Your task to perform on an android device: toggle priority inbox in the gmail app Image 0: 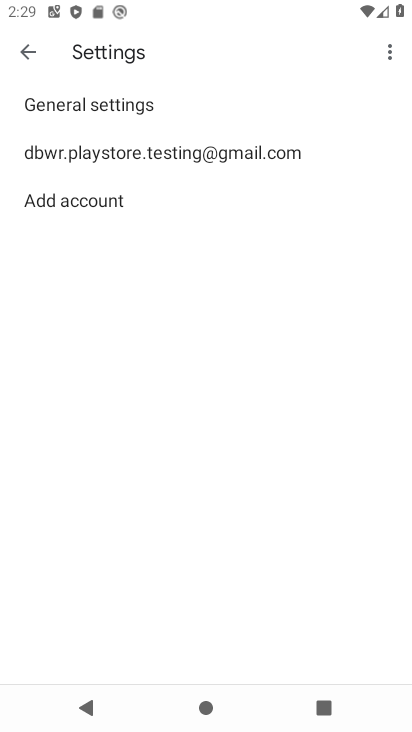
Step 0: press home button
Your task to perform on an android device: toggle priority inbox in the gmail app Image 1: 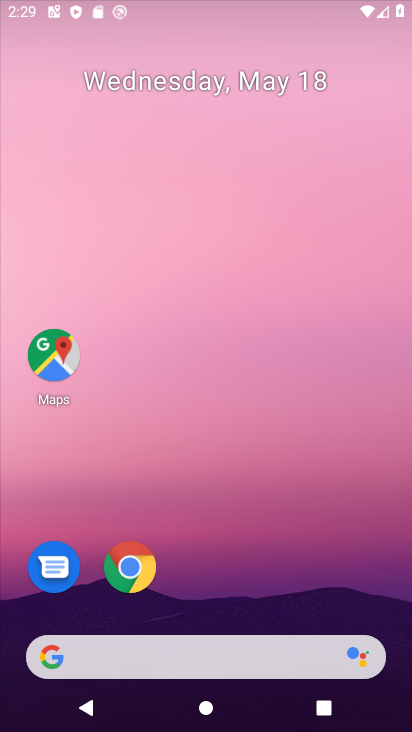
Step 1: drag from (276, 548) to (275, 99)
Your task to perform on an android device: toggle priority inbox in the gmail app Image 2: 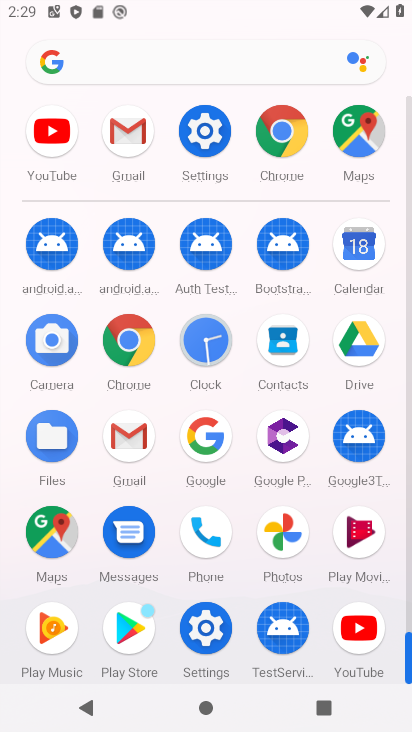
Step 2: click (138, 135)
Your task to perform on an android device: toggle priority inbox in the gmail app Image 3: 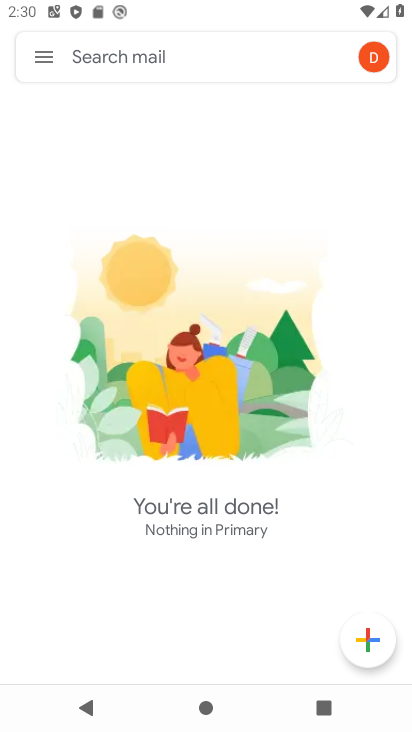
Step 3: click (29, 60)
Your task to perform on an android device: toggle priority inbox in the gmail app Image 4: 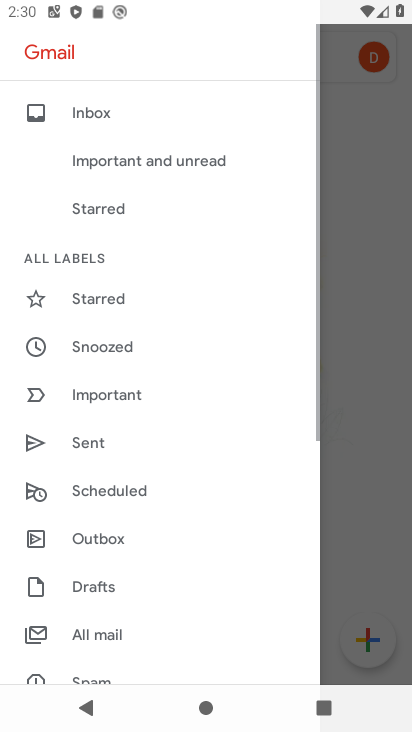
Step 4: drag from (132, 569) to (236, 191)
Your task to perform on an android device: toggle priority inbox in the gmail app Image 5: 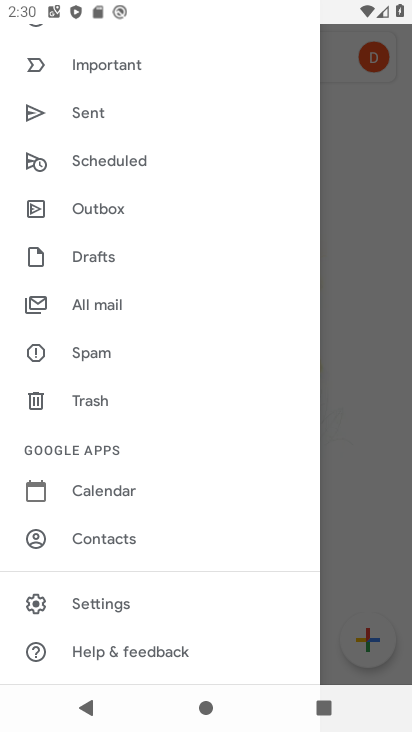
Step 5: click (110, 597)
Your task to perform on an android device: toggle priority inbox in the gmail app Image 6: 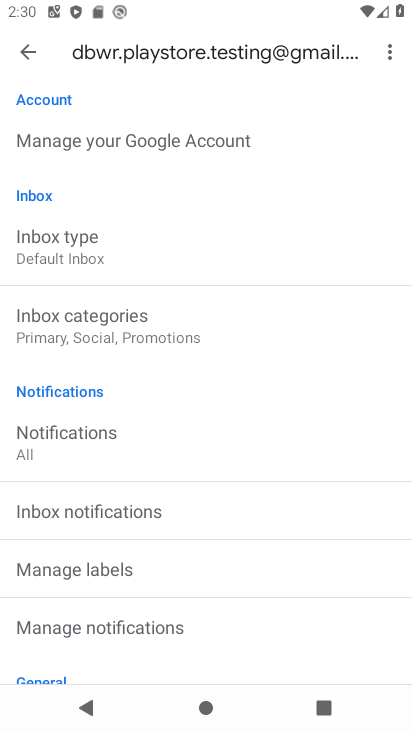
Step 6: click (80, 237)
Your task to perform on an android device: toggle priority inbox in the gmail app Image 7: 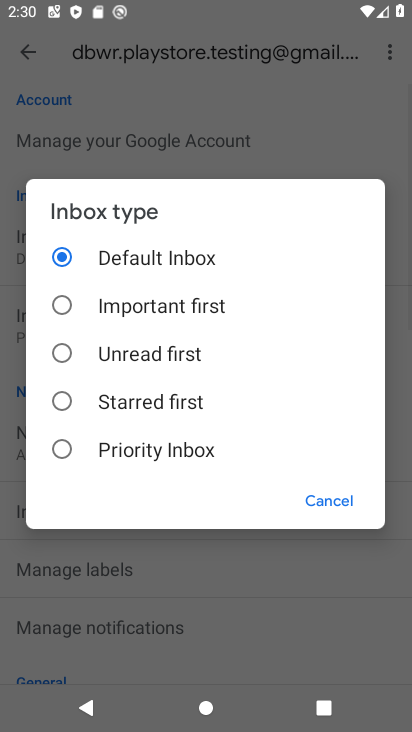
Step 7: click (137, 445)
Your task to perform on an android device: toggle priority inbox in the gmail app Image 8: 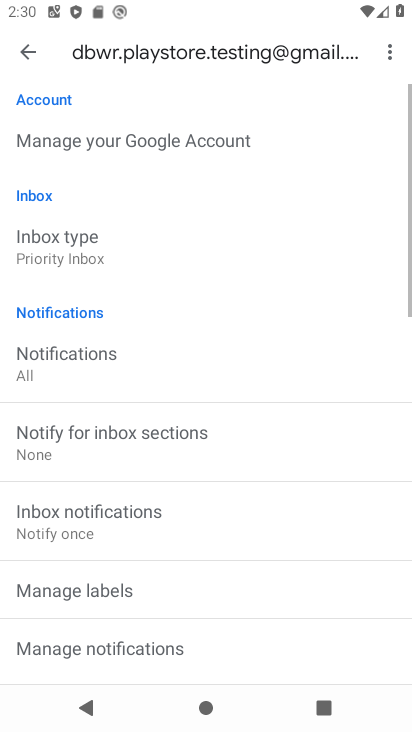
Step 8: task complete